Your task to perform on an android device: turn on location history Image 0: 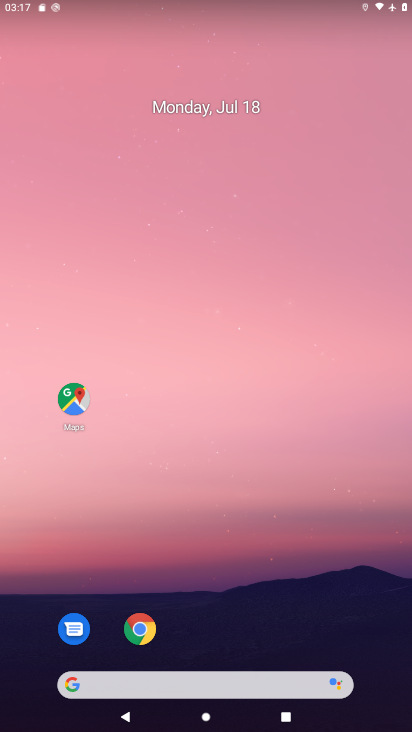
Step 0: drag from (338, 606) to (349, 185)
Your task to perform on an android device: turn on location history Image 1: 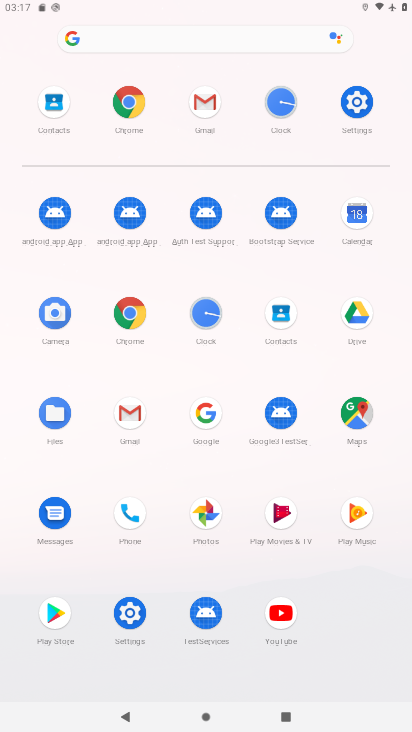
Step 1: click (349, 112)
Your task to perform on an android device: turn on location history Image 2: 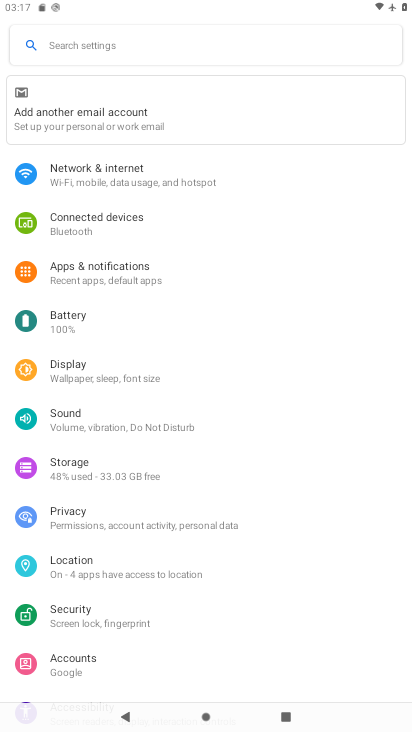
Step 2: drag from (323, 451) to (324, 362)
Your task to perform on an android device: turn on location history Image 3: 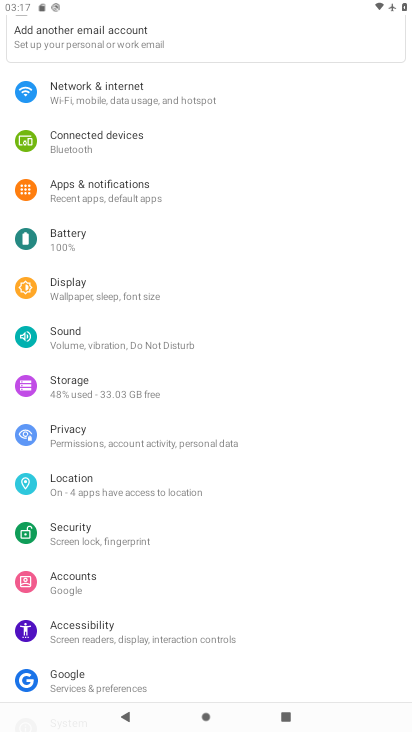
Step 3: drag from (300, 471) to (305, 390)
Your task to perform on an android device: turn on location history Image 4: 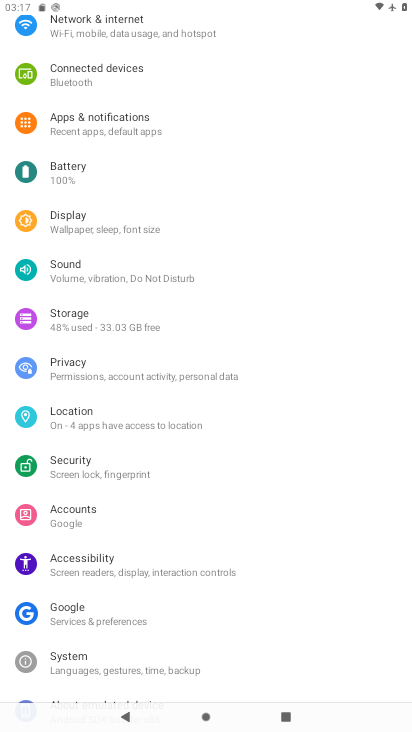
Step 4: drag from (312, 498) to (315, 374)
Your task to perform on an android device: turn on location history Image 5: 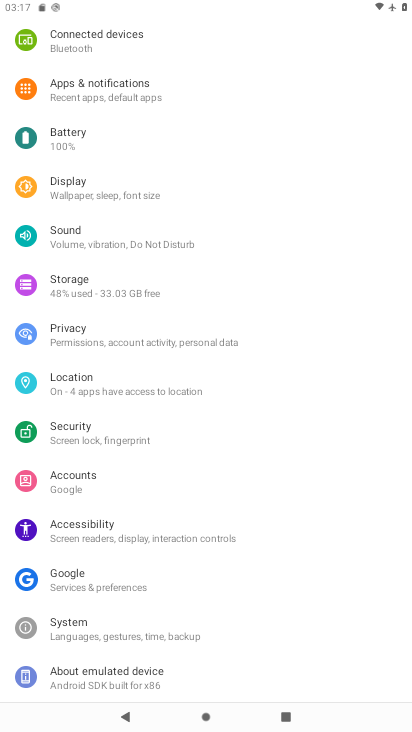
Step 5: click (220, 387)
Your task to perform on an android device: turn on location history Image 6: 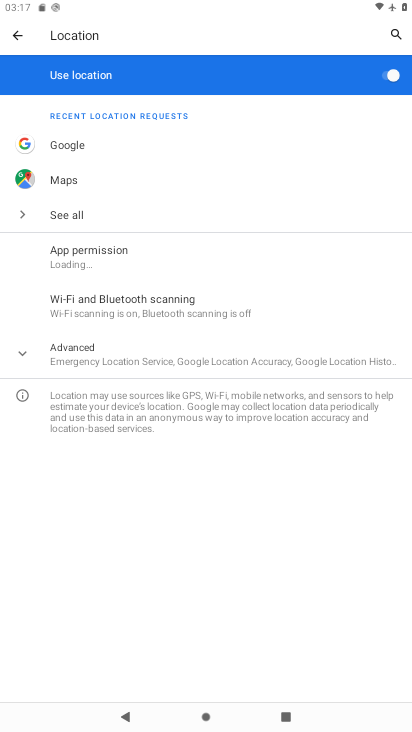
Step 6: click (212, 359)
Your task to perform on an android device: turn on location history Image 7: 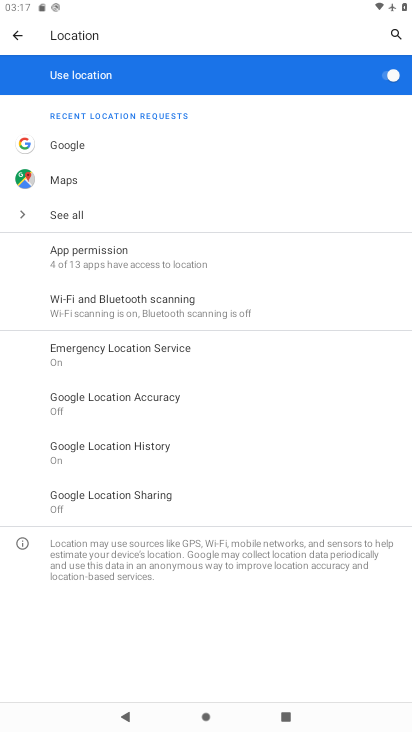
Step 7: task complete